Your task to perform on an android device: Go to Yahoo.com Image 0: 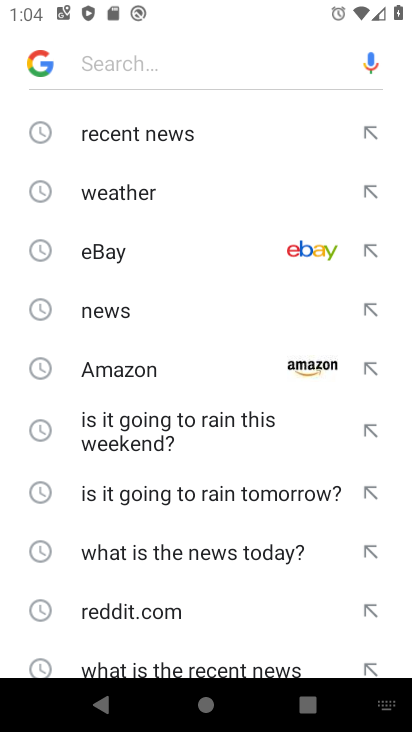
Step 0: press home button
Your task to perform on an android device: Go to Yahoo.com Image 1: 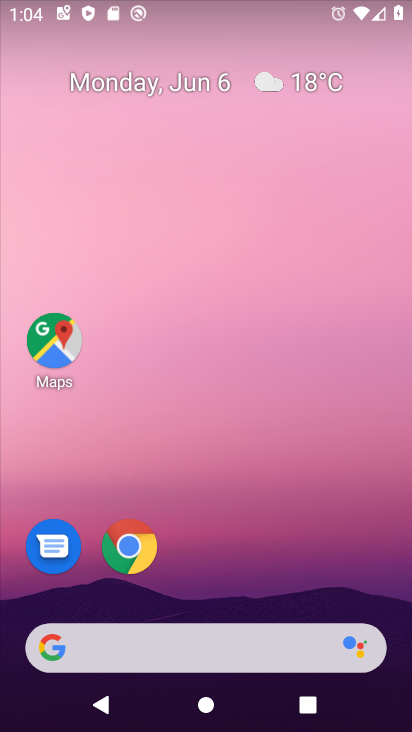
Step 1: click (253, 659)
Your task to perform on an android device: Go to Yahoo.com Image 2: 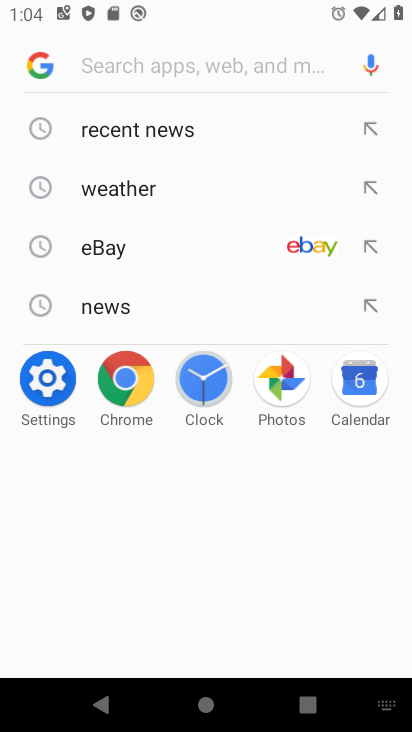
Step 2: type " Yahoo.com"
Your task to perform on an android device: Go to Yahoo.com Image 3: 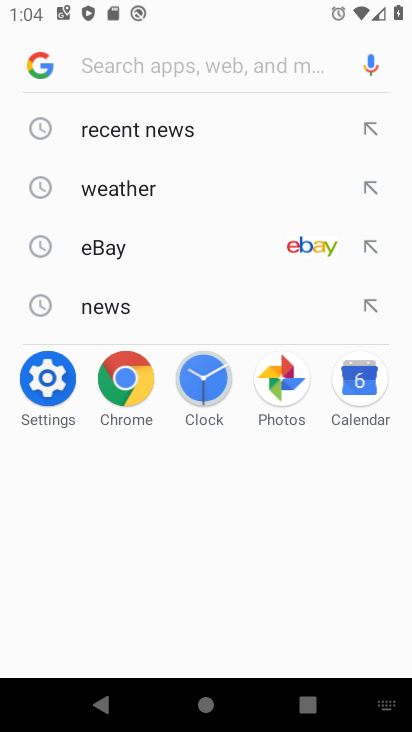
Step 3: click (182, 75)
Your task to perform on an android device: Go to Yahoo.com Image 4: 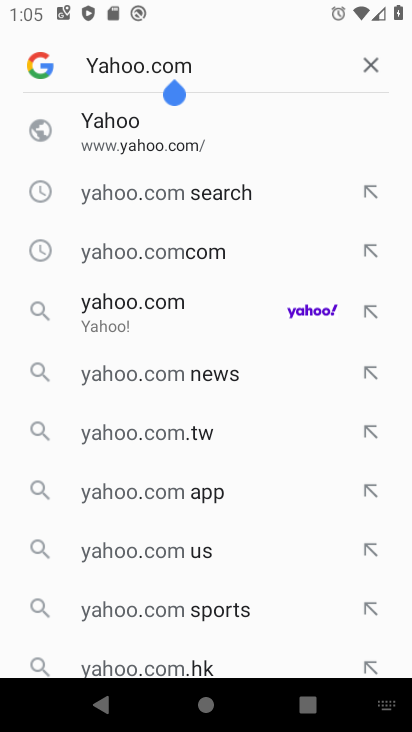
Step 4: click (117, 135)
Your task to perform on an android device: Go to Yahoo.com Image 5: 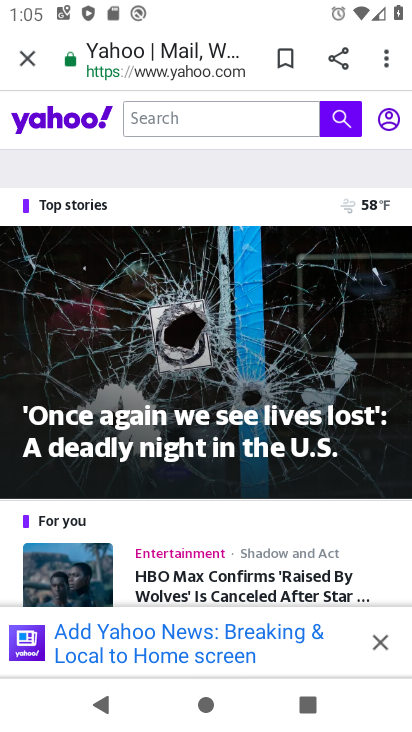
Step 5: task complete